Your task to perform on an android device: toggle notification dots Image 0: 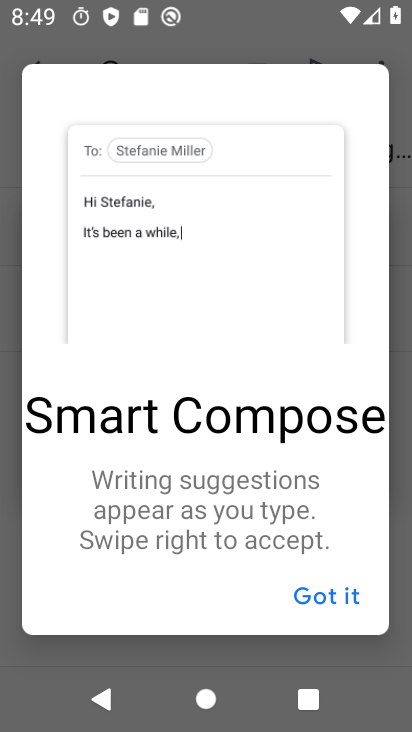
Step 0: press home button
Your task to perform on an android device: toggle notification dots Image 1: 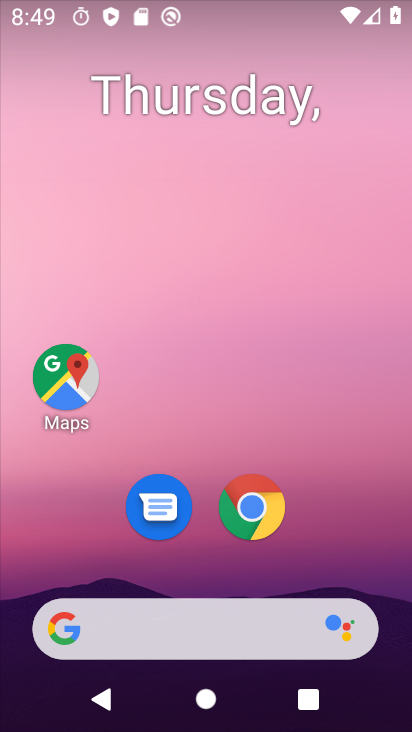
Step 1: drag from (189, 508) to (211, 9)
Your task to perform on an android device: toggle notification dots Image 2: 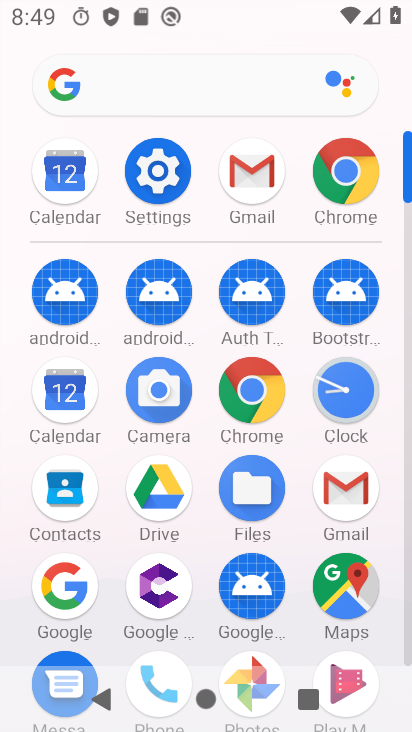
Step 2: click (166, 195)
Your task to perform on an android device: toggle notification dots Image 3: 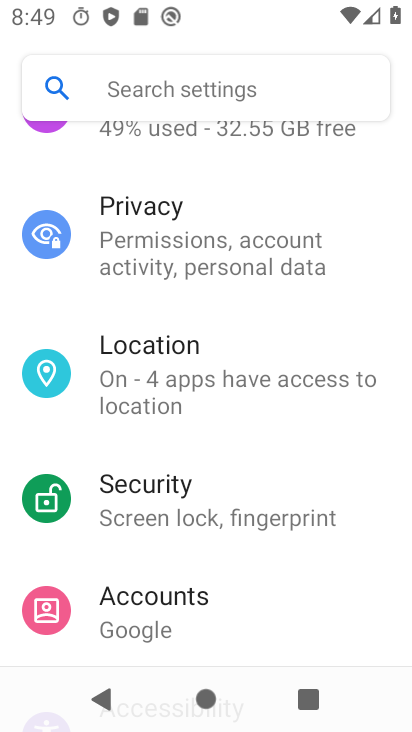
Step 3: drag from (237, 281) to (215, 569)
Your task to perform on an android device: toggle notification dots Image 4: 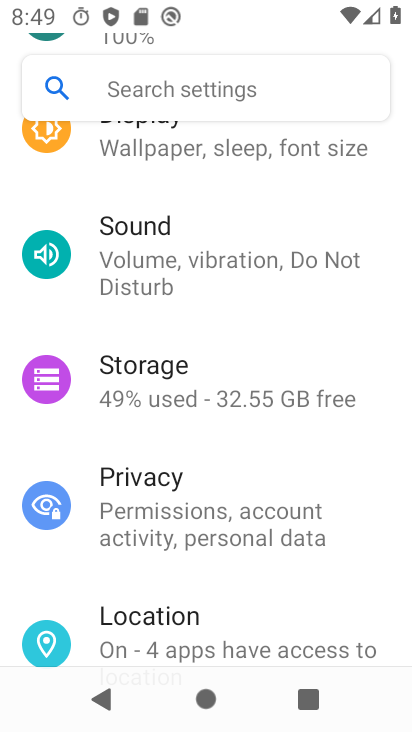
Step 4: drag from (218, 230) to (201, 636)
Your task to perform on an android device: toggle notification dots Image 5: 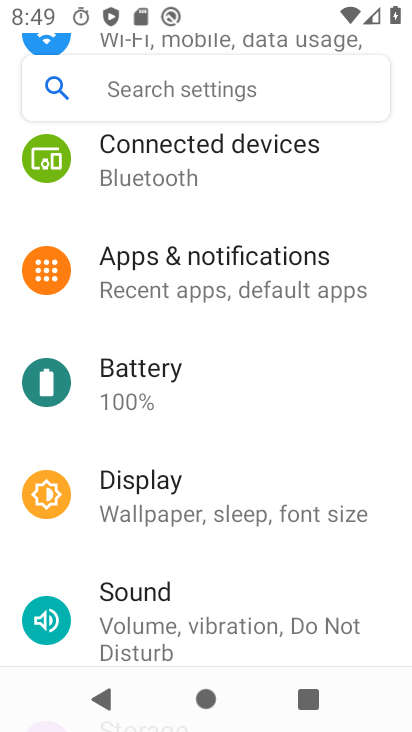
Step 5: click (204, 267)
Your task to perform on an android device: toggle notification dots Image 6: 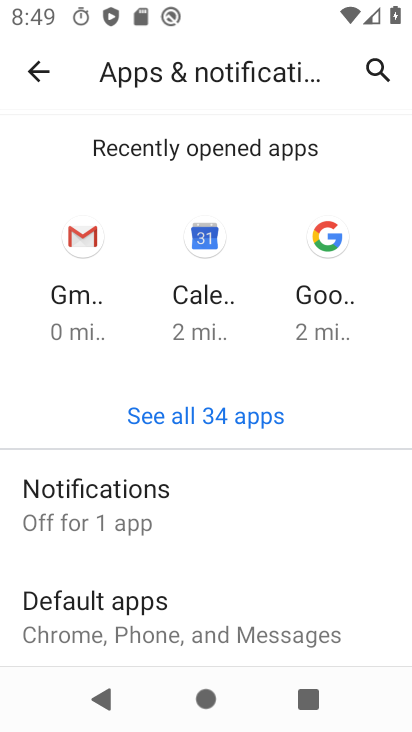
Step 6: click (117, 518)
Your task to perform on an android device: toggle notification dots Image 7: 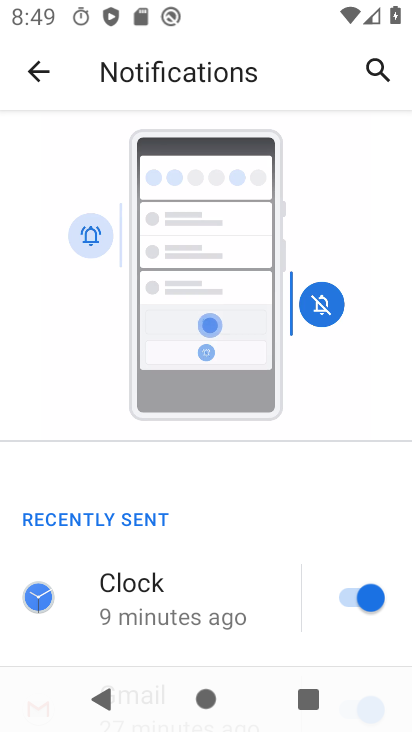
Step 7: drag from (188, 488) to (219, 131)
Your task to perform on an android device: toggle notification dots Image 8: 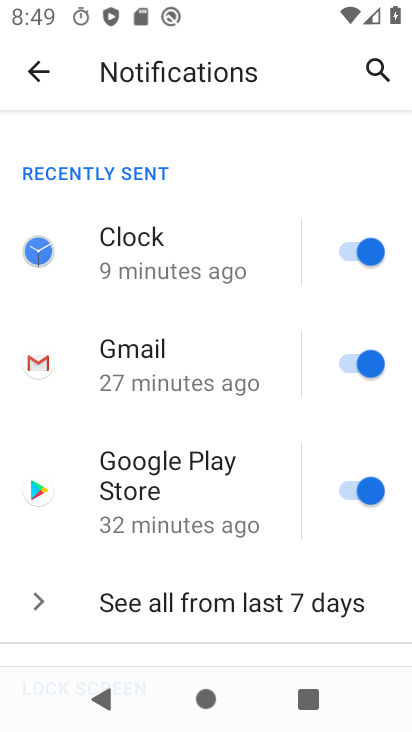
Step 8: drag from (174, 461) to (242, 143)
Your task to perform on an android device: toggle notification dots Image 9: 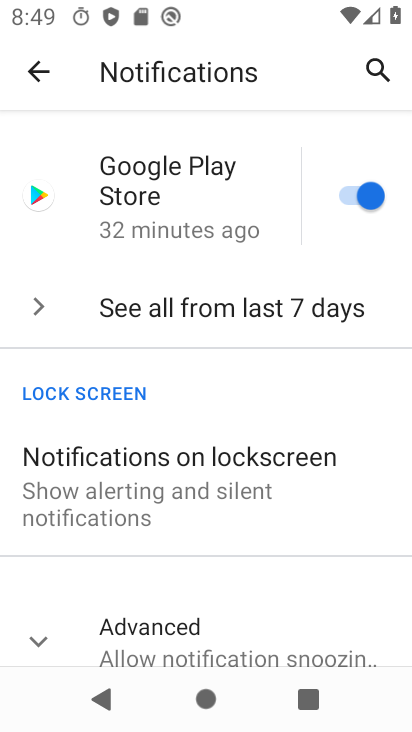
Step 9: click (159, 625)
Your task to perform on an android device: toggle notification dots Image 10: 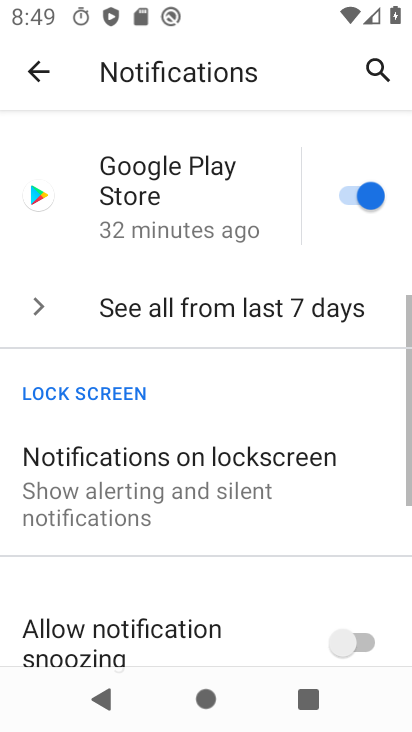
Step 10: drag from (198, 594) to (247, 156)
Your task to perform on an android device: toggle notification dots Image 11: 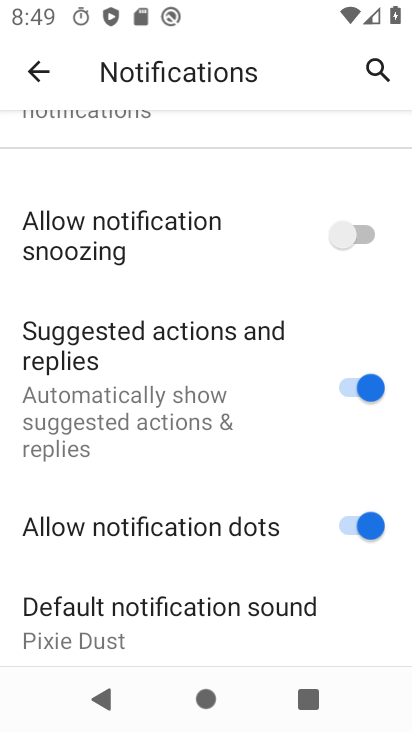
Step 11: click (330, 524)
Your task to perform on an android device: toggle notification dots Image 12: 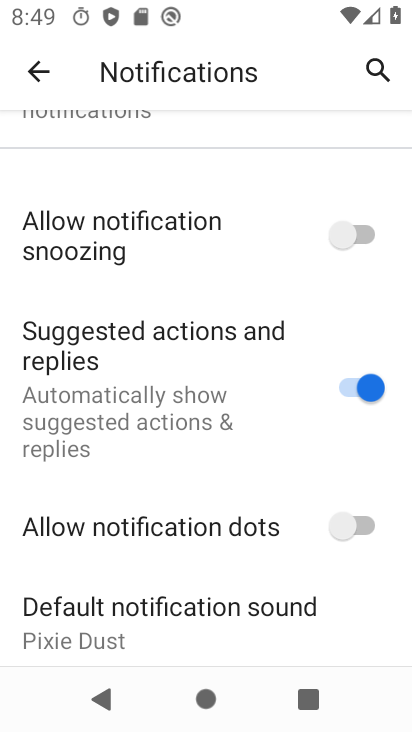
Step 12: task complete